Your task to perform on an android device: open app "Etsy: Buy & Sell Unique Items" Image 0: 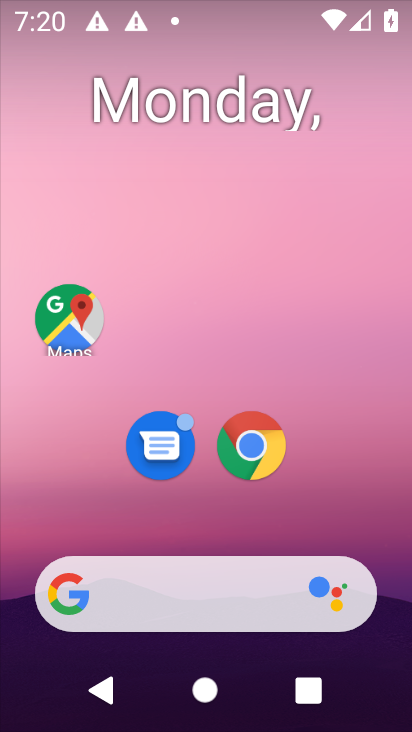
Step 0: drag from (399, 575) to (197, 69)
Your task to perform on an android device: open app "Etsy: Buy & Sell Unique Items" Image 1: 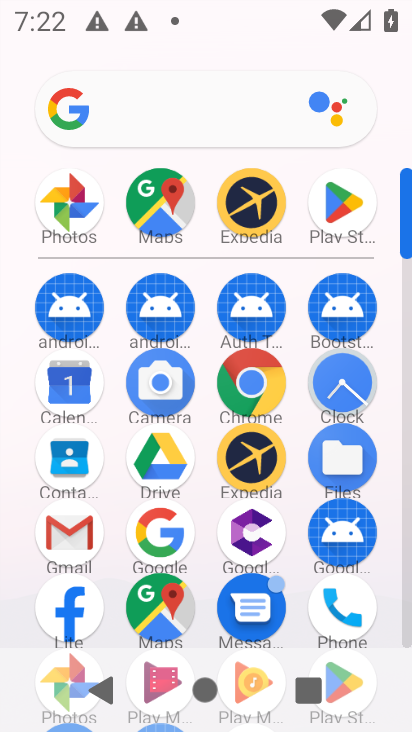
Step 1: click (358, 211)
Your task to perform on an android device: open app "Etsy: Buy & Sell Unique Items" Image 2: 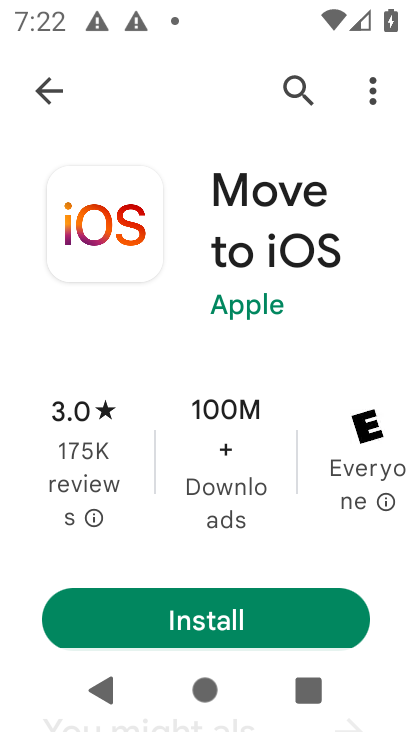
Step 2: press back button
Your task to perform on an android device: open app "Etsy: Buy & Sell Unique Items" Image 3: 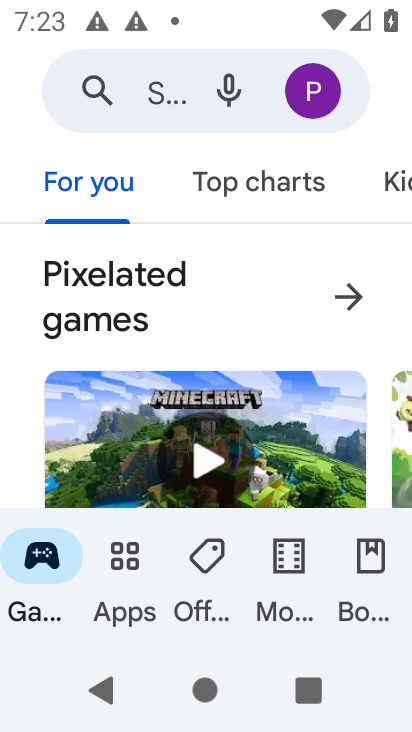
Step 3: click (137, 92)
Your task to perform on an android device: open app "Etsy: Buy & Sell Unique Items" Image 4: 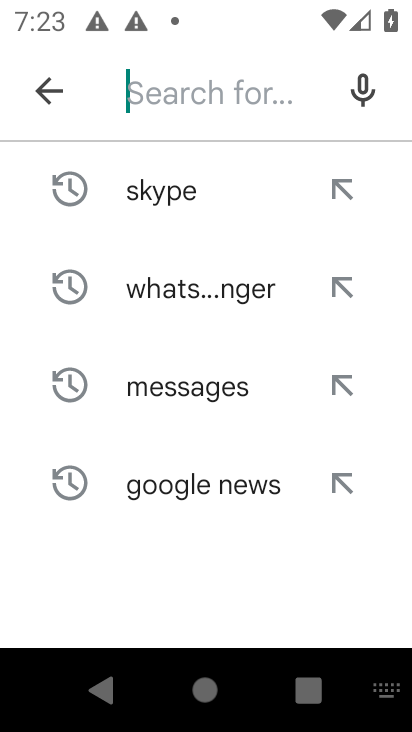
Step 4: type "Etsy: Buy & Sell Unique Items"
Your task to perform on an android device: open app "Etsy: Buy & Sell Unique Items" Image 5: 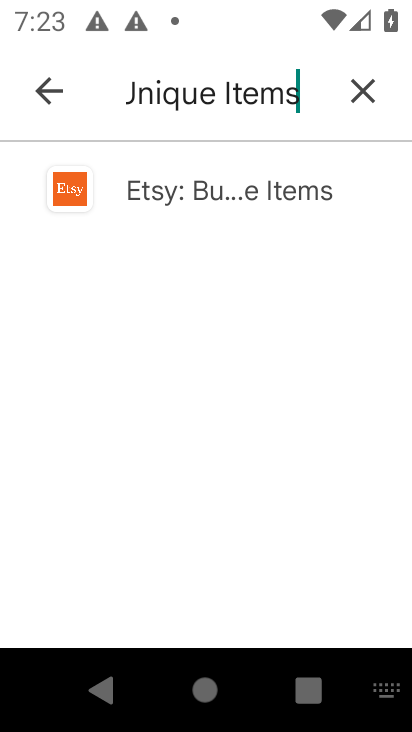
Step 5: click (189, 192)
Your task to perform on an android device: open app "Etsy: Buy & Sell Unique Items" Image 6: 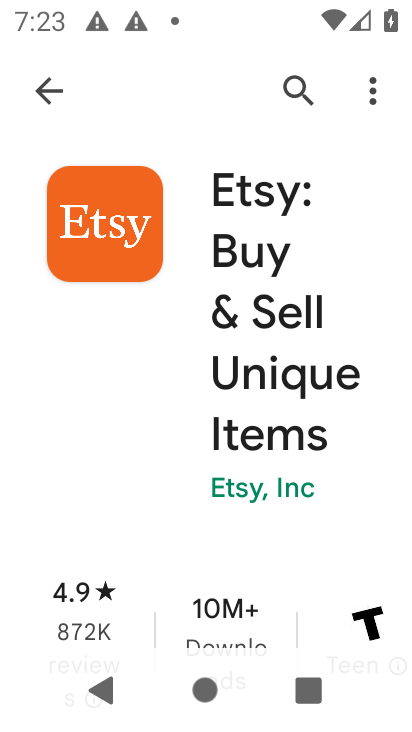
Step 6: task complete